Your task to perform on an android device: remove spam from my inbox in the gmail app Image 0: 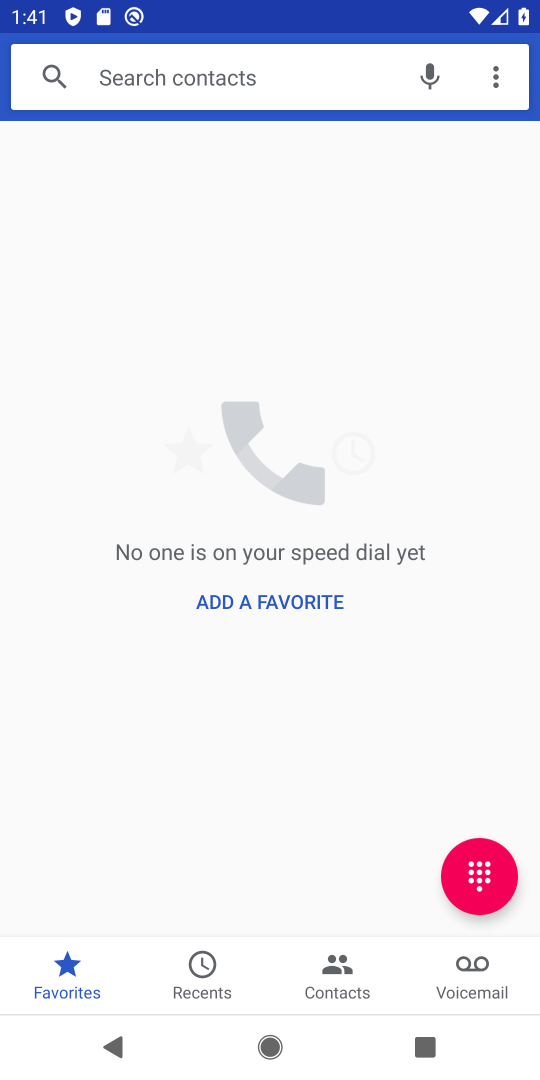
Step 0: press home button
Your task to perform on an android device: remove spam from my inbox in the gmail app Image 1: 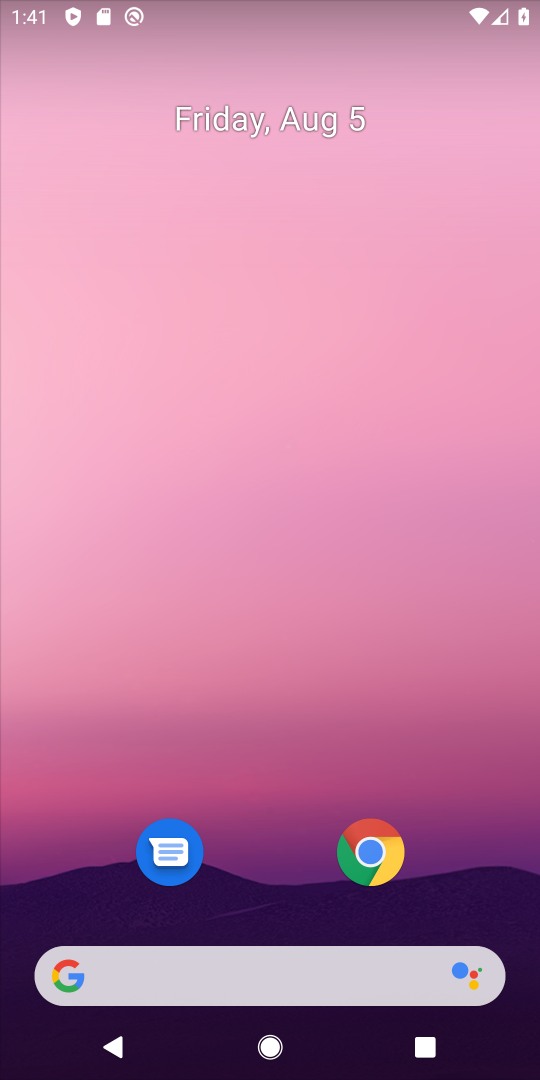
Step 1: drag from (261, 877) to (263, 162)
Your task to perform on an android device: remove spam from my inbox in the gmail app Image 2: 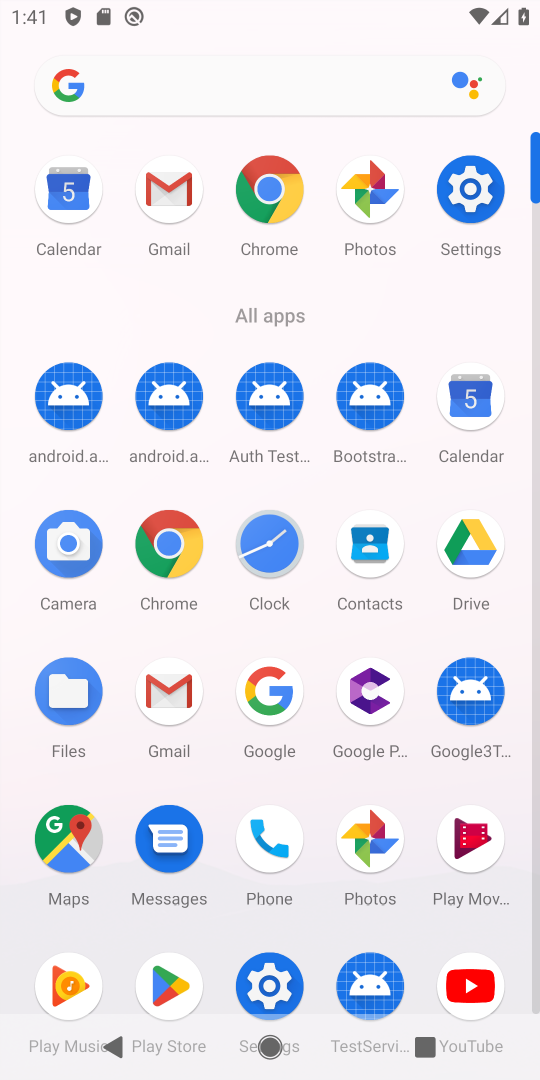
Step 2: click (164, 224)
Your task to perform on an android device: remove spam from my inbox in the gmail app Image 3: 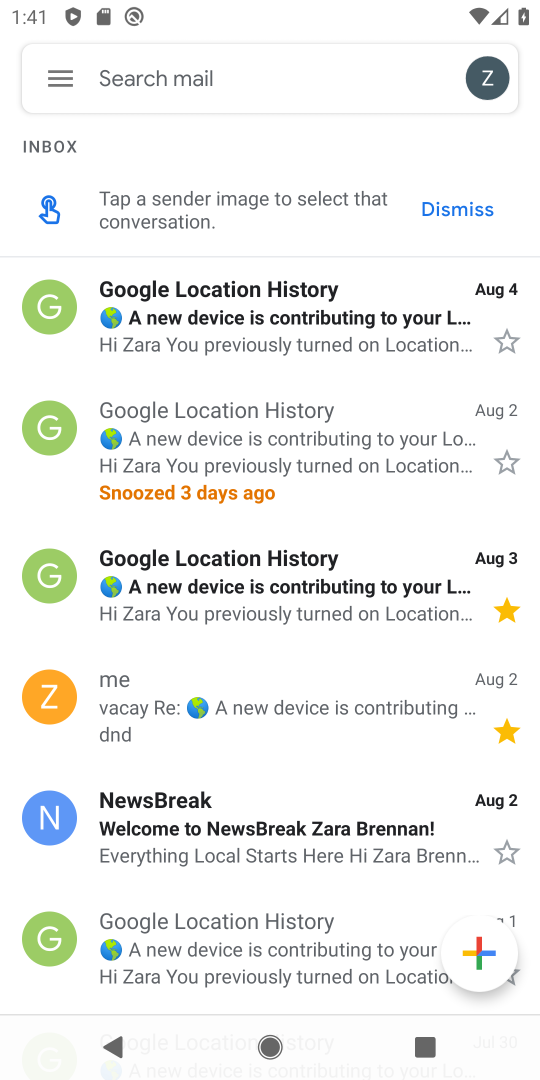
Step 3: click (50, 79)
Your task to perform on an android device: remove spam from my inbox in the gmail app Image 4: 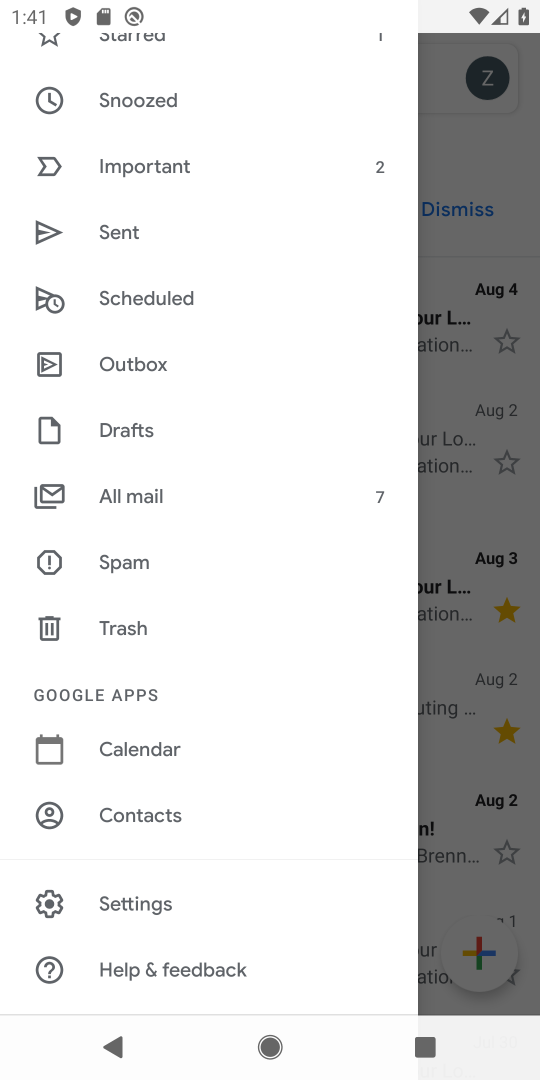
Step 4: click (139, 551)
Your task to perform on an android device: remove spam from my inbox in the gmail app Image 5: 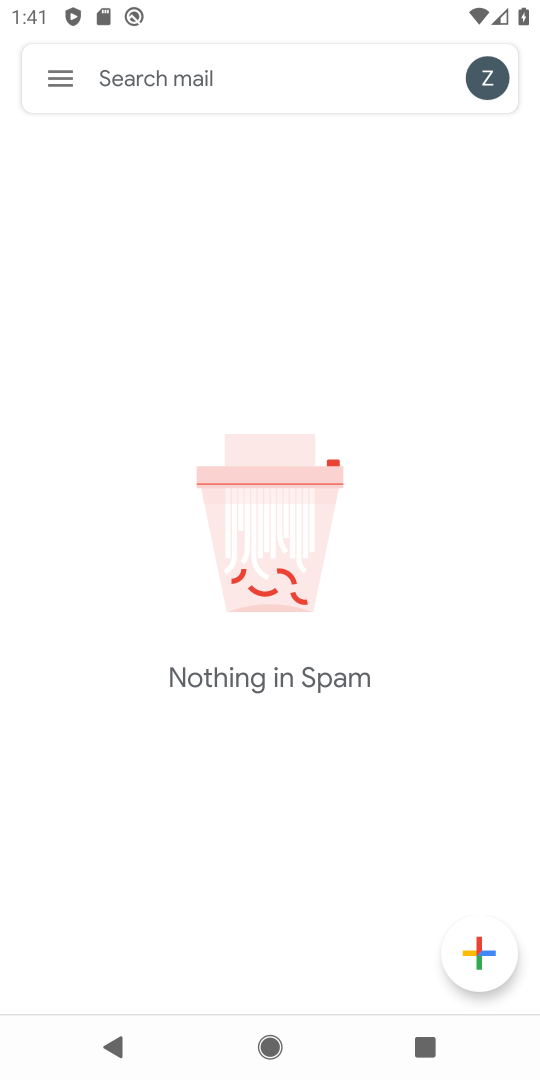
Step 5: task complete